Your task to perform on an android device: check android version Image 0: 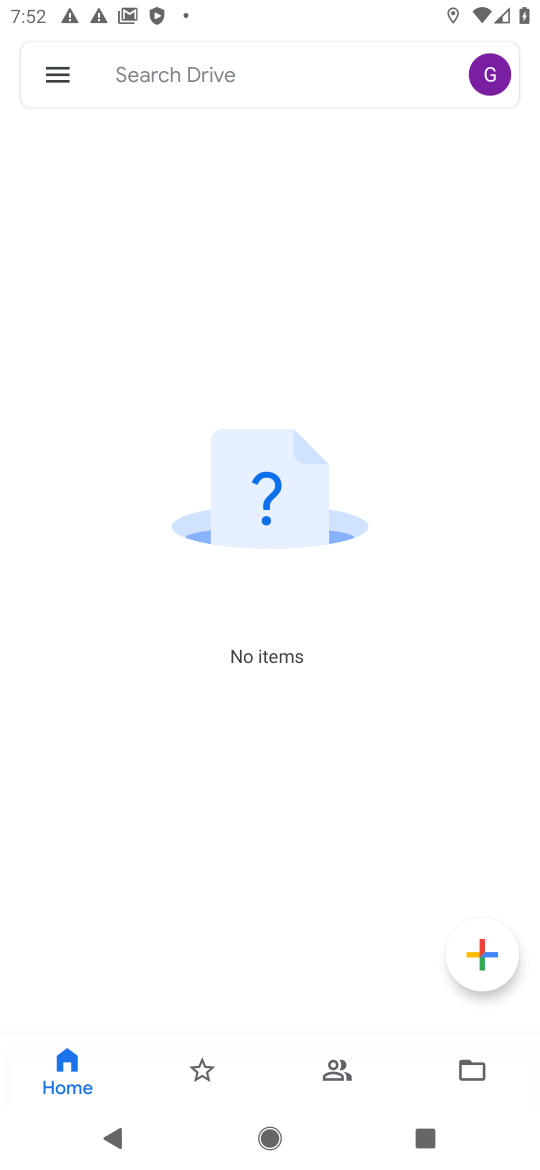
Step 0: press home button
Your task to perform on an android device: check android version Image 1: 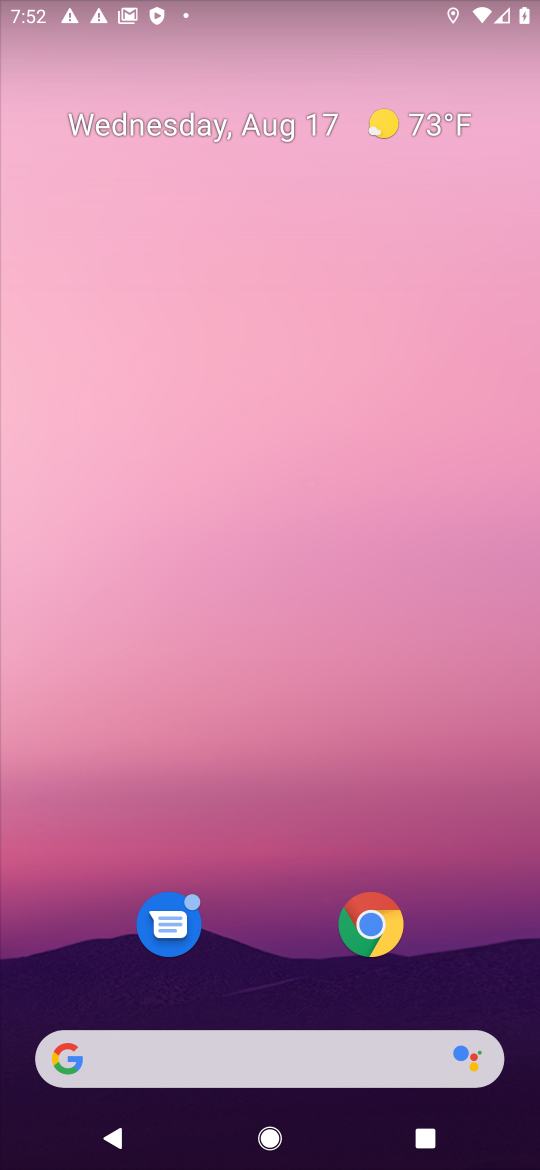
Step 1: drag from (274, 962) to (420, 12)
Your task to perform on an android device: check android version Image 2: 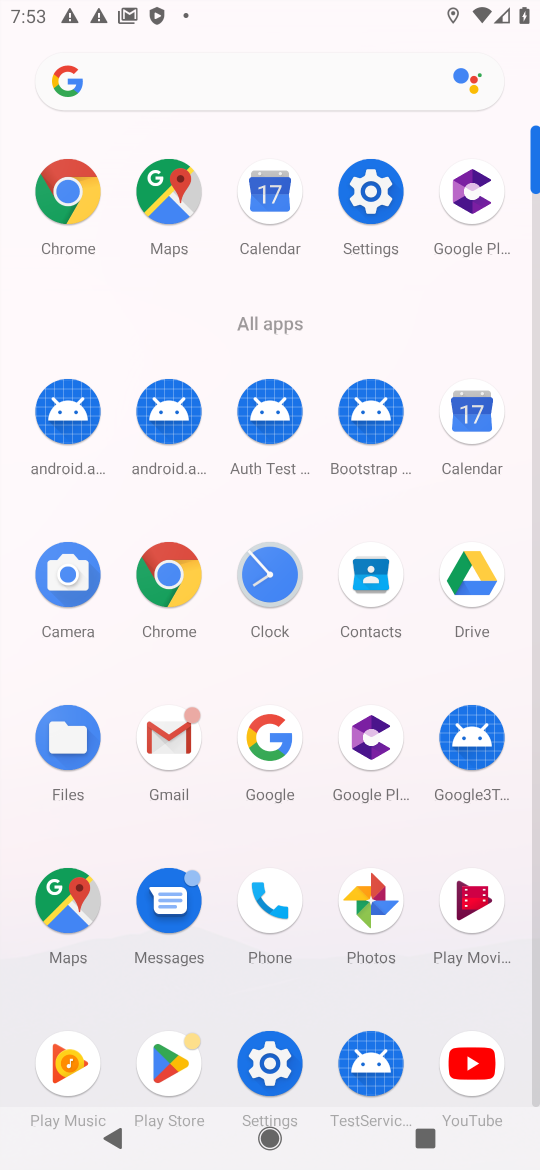
Step 2: click (279, 1051)
Your task to perform on an android device: check android version Image 3: 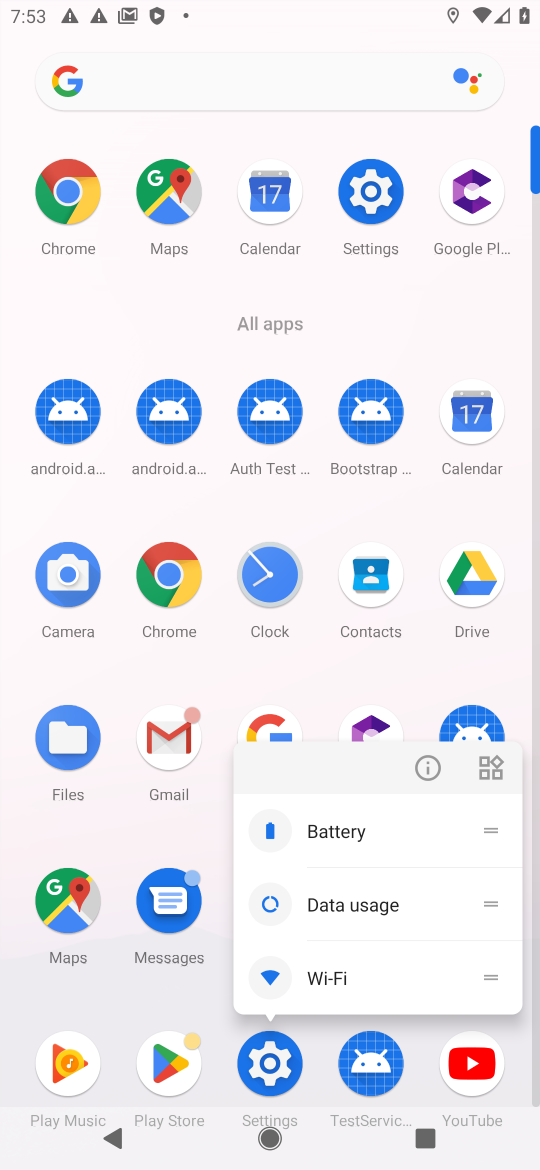
Step 3: click (259, 1058)
Your task to perform on an android device: check android version Image 4: 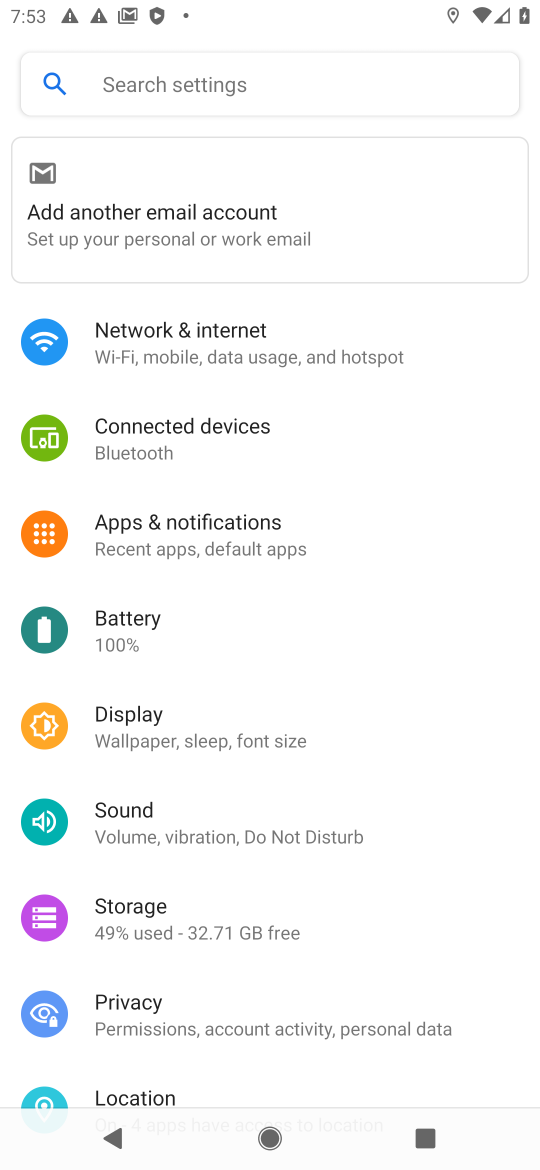
Step 4: drag from (379, 1031) to (433, 223)
Your task to perform on an android device: check android version Image 5: 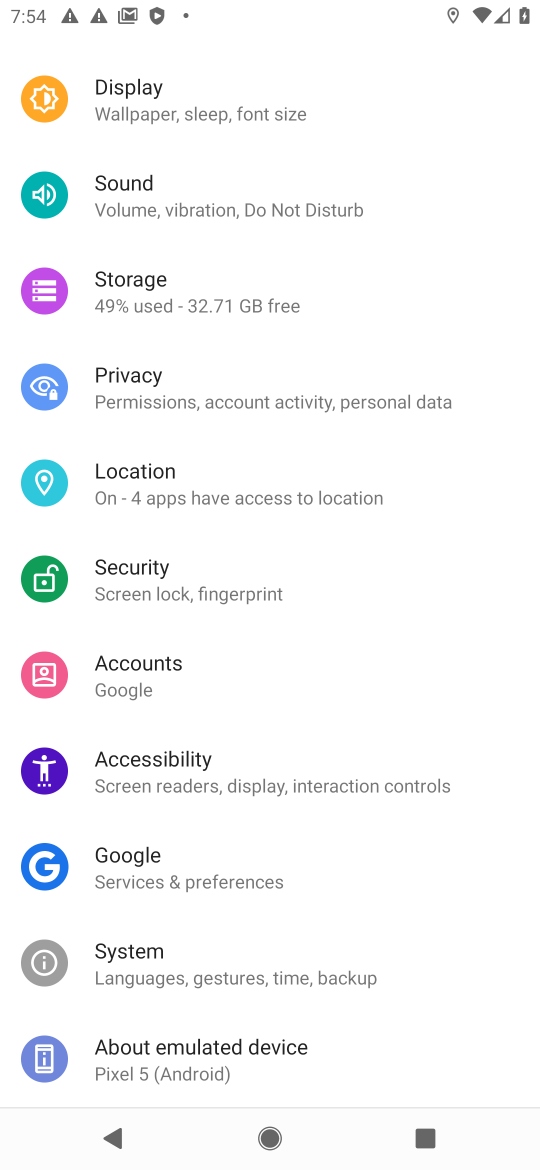
Step 5: drag from (287, 1033) to (507, 175)
Your task to perform on an android device: check android version Image 6: 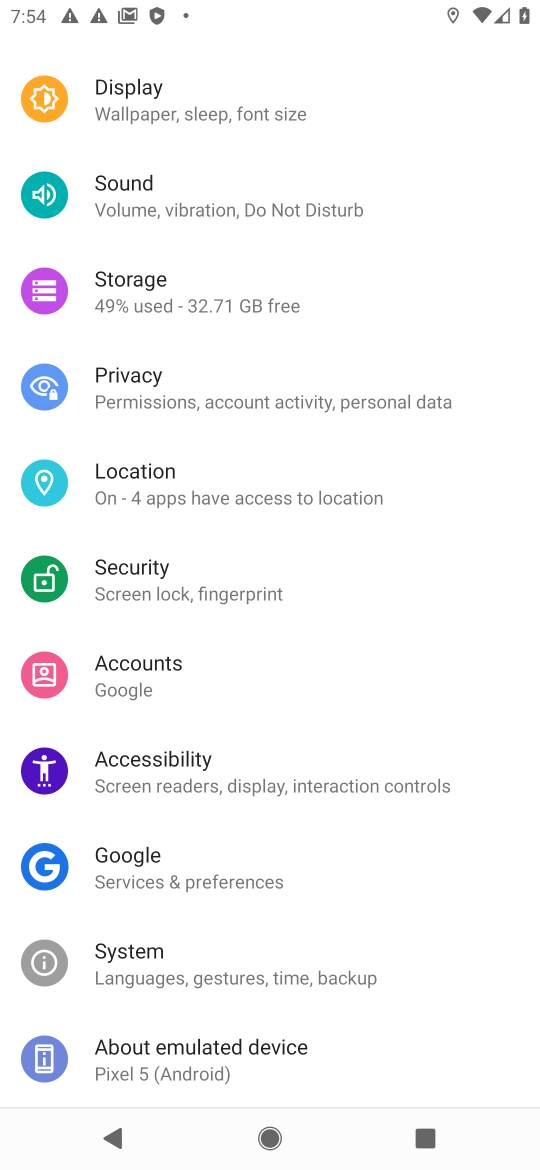
Step 6: click (235, 1054)
Your task to perform on an android device: check android version Image 7: 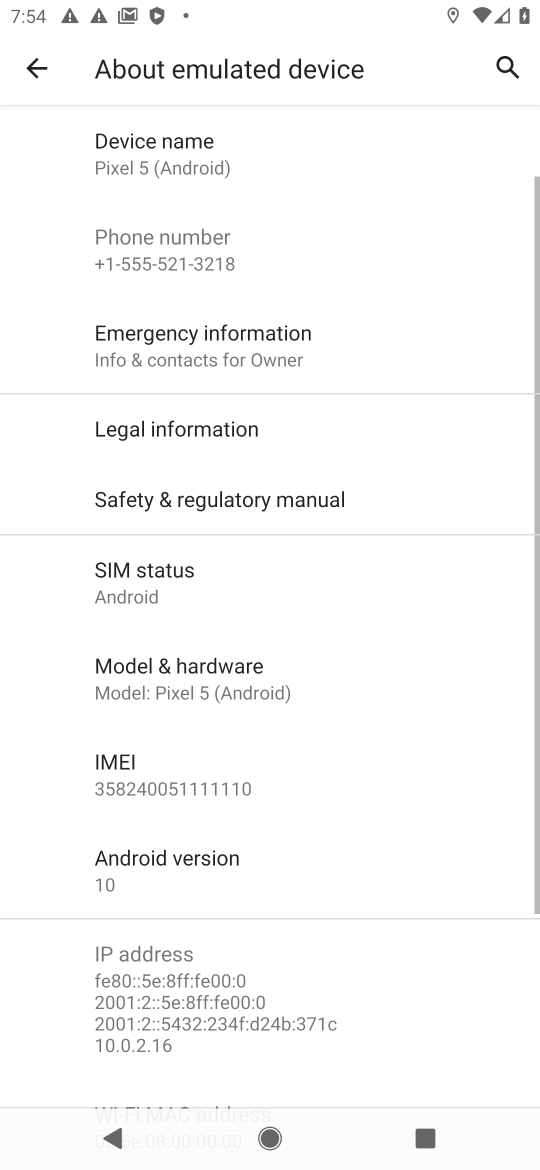
Step 7: click (166, 862)
Your task to perform on an android device: check android version Image 8: 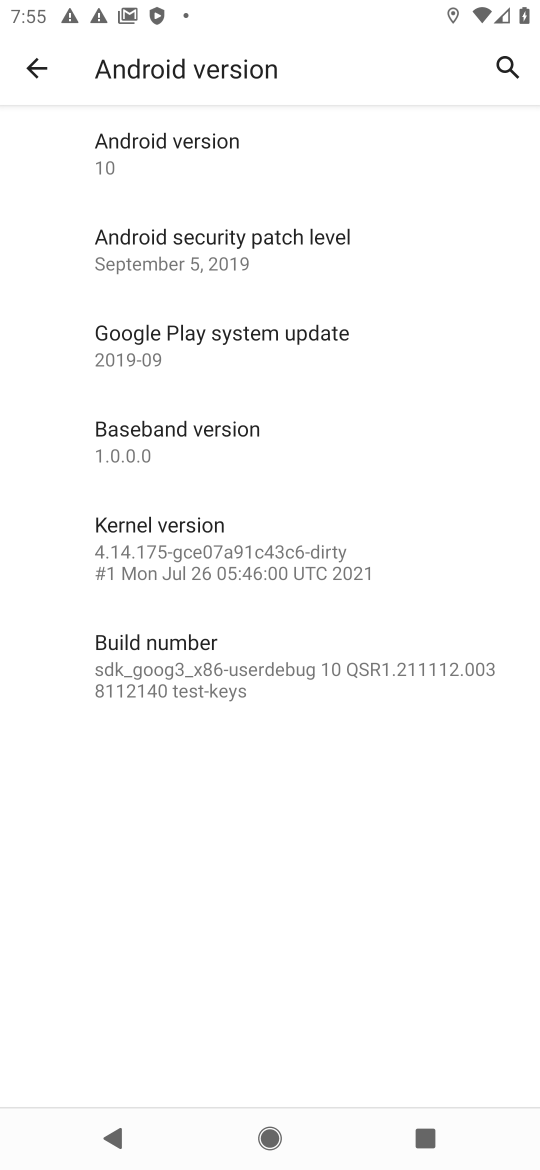
Step 8: task complete